Your task to perform on an android device: toggle notification dots Image 0: 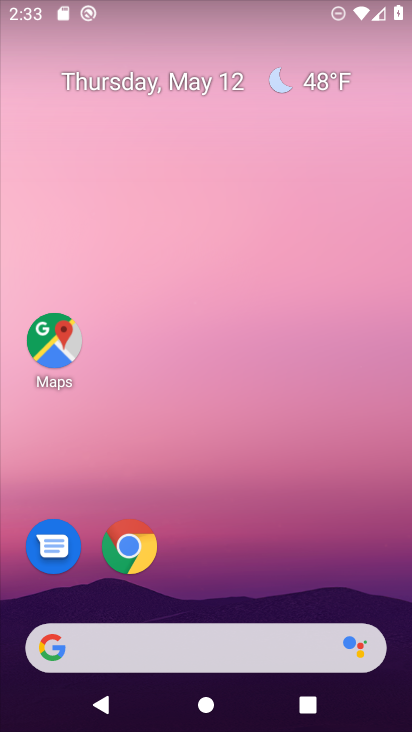
Step 0: drag from (232, 679) to (276, 164)
Your task to perform on an android device: toggle notification dots Image 1: 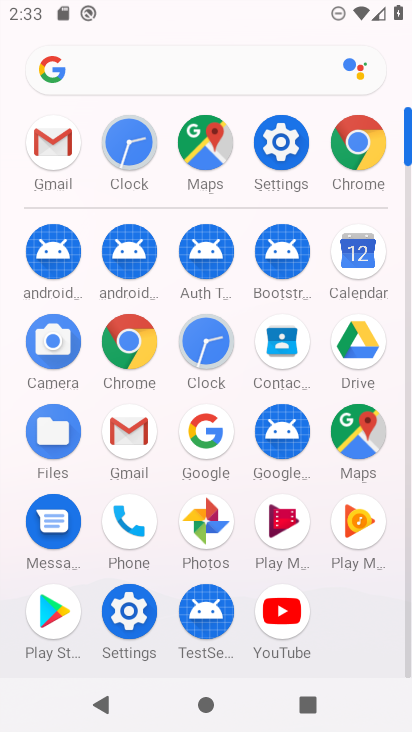
Step 1: click (139, 613)
Your task to perform on an android device: toggle notification dots Image 2: 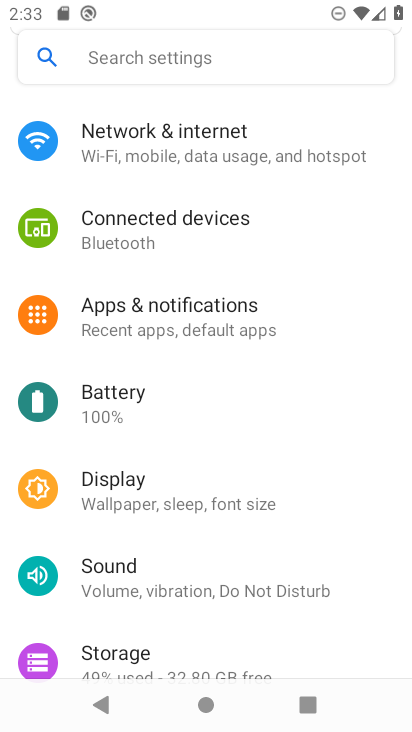
Step 2: click (184, 53)
Your task to perform on an android device: toggle notification dots Image 3: 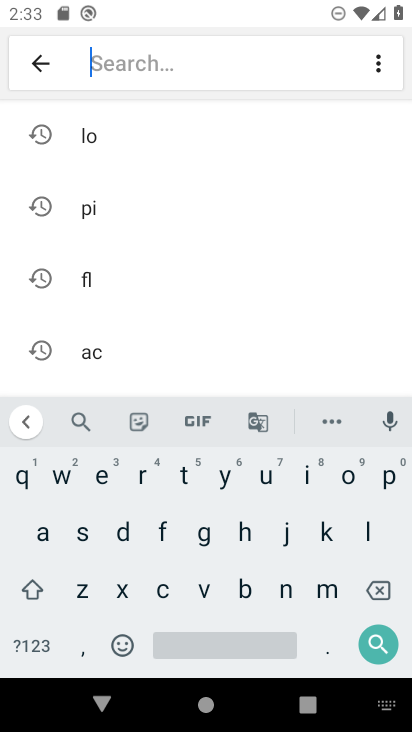
Step 3: click (121, 544)
Your task to perform on an android device: toggle notification dots Image 4: 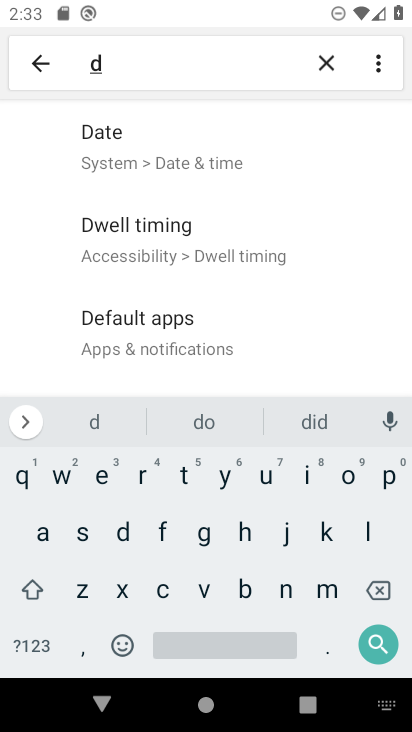
Step 4: click (346, 476)
Your task to perform on an android device: toggle notification dots Image 5: 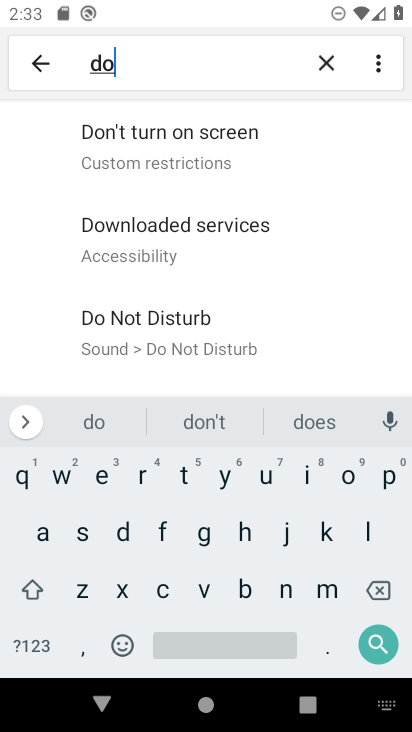
Step 5: click (184, 476)
Your task to perform on an android device: toggle notification dots Image 6: 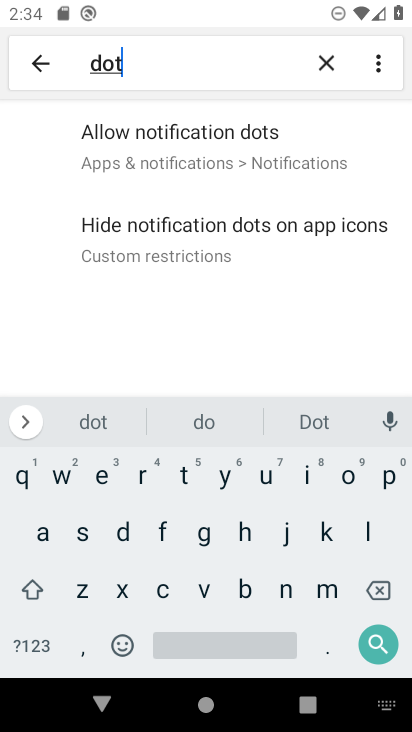
Step 6: click (152, 139)
Your task to perform on an android device: toggle notification dots Image 7: 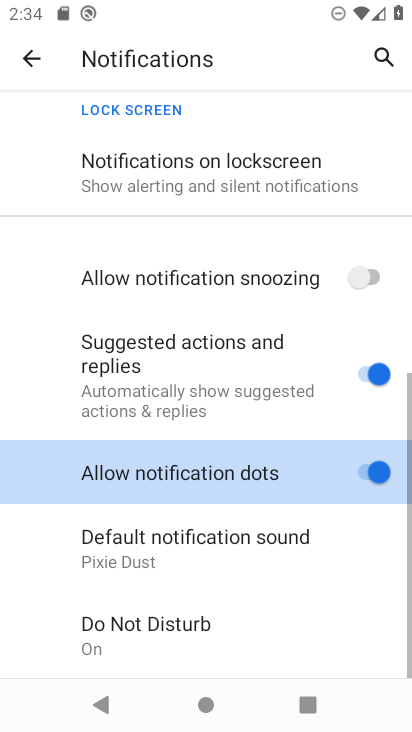
Step 7: task complete